Your task to perform on an android device: Open the map Image 0: 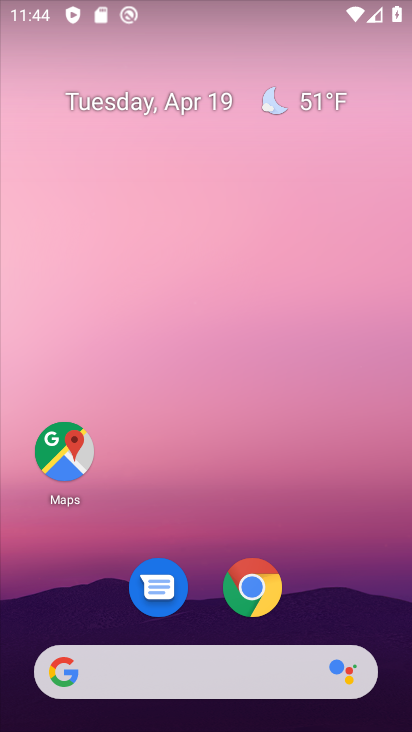
Step 0: click (88, 447)
Your task to perform on an android device: Open the map Image 1: 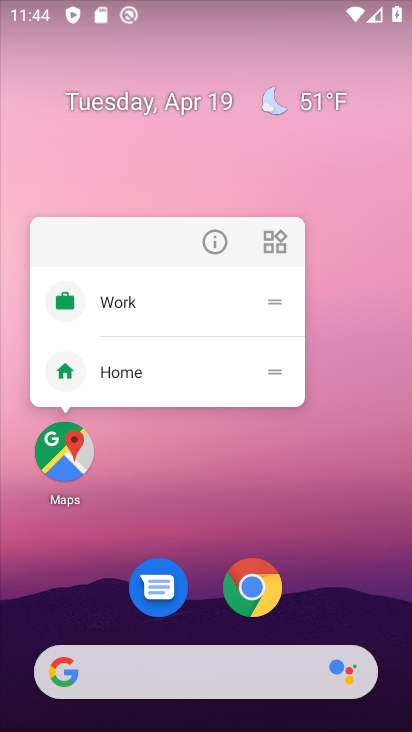
Step 1: click (56, 456)
Your task to perform on an android device: Open the map Image 2: 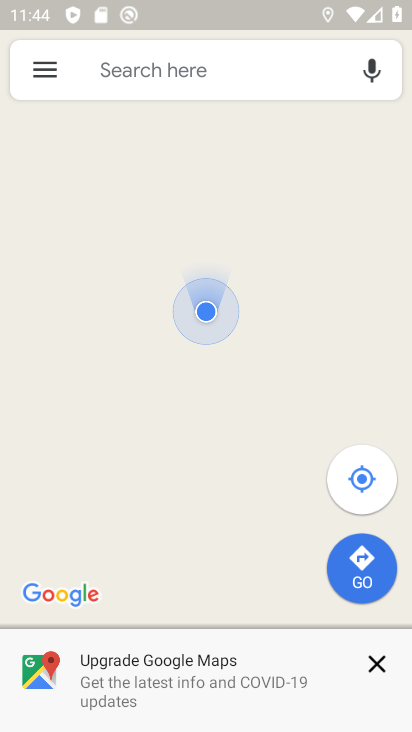
Step 2: task complete